Your task to perform on an android device: turn off data saver in the chrome app Image 0: 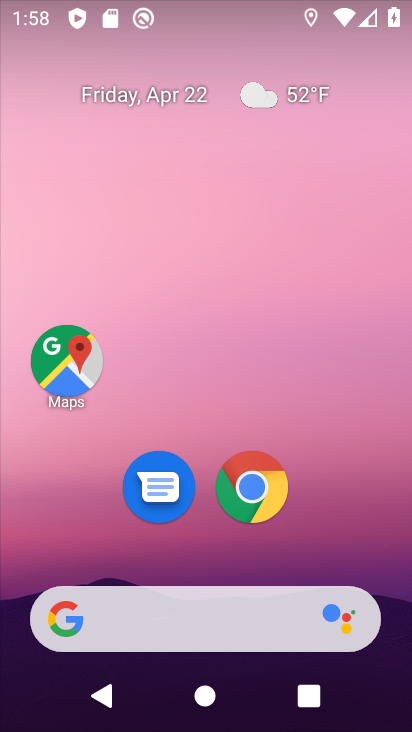
Step 0: click (242, 468)
Your task to perform on an android device: turn off data saver in the chrome app Image 1: 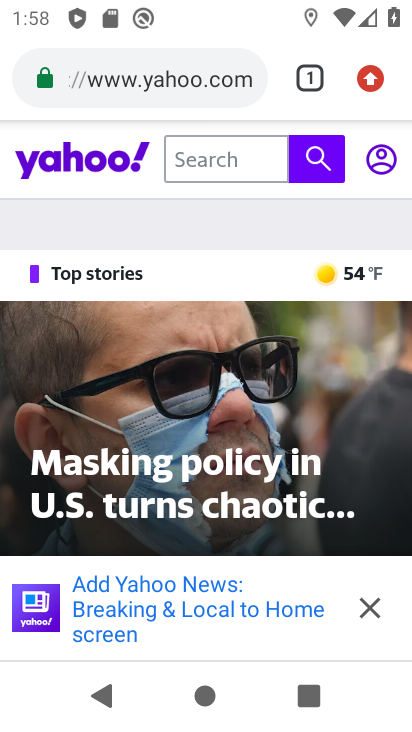
Step 1: click (373, 85)
Your task to perform on an android device: turn off data saver in the chrome app Image 2: 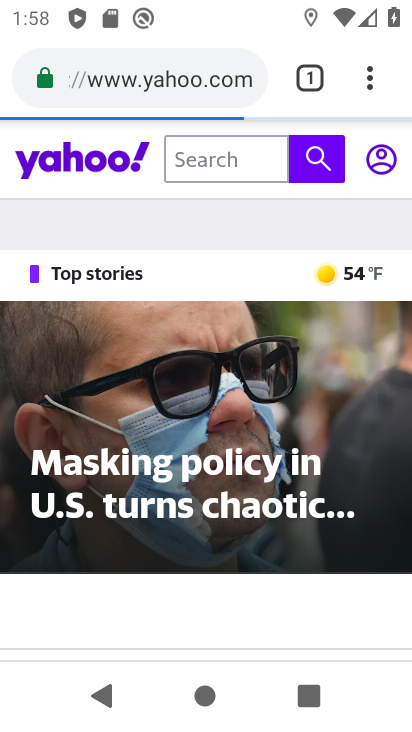
Step 2: click (368, 89)
Your task to perform on an android device: turn off data saver in the chrome app Image 3: 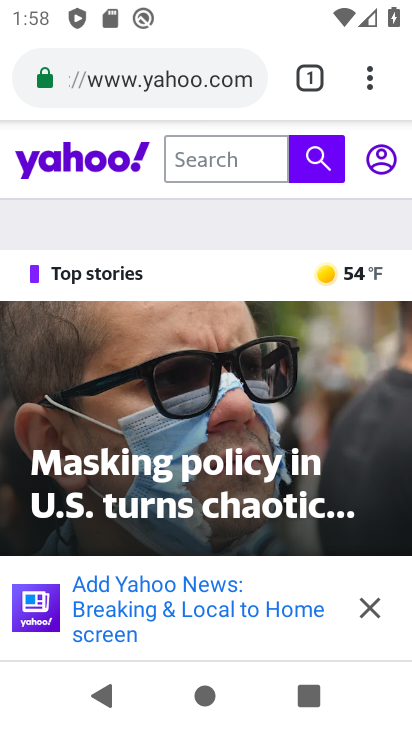
Step 3: click (382, 82)
Your task to perform on an android device: turn off data saver in the chrome app Image 4: 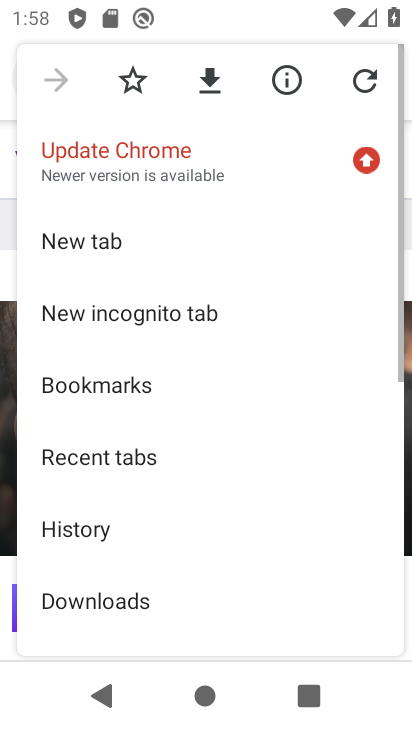
Step 4: drag from (112, 591) to (151, 380)
Your task to perform on an android device: turn off data saver in the chrome app Image 5: 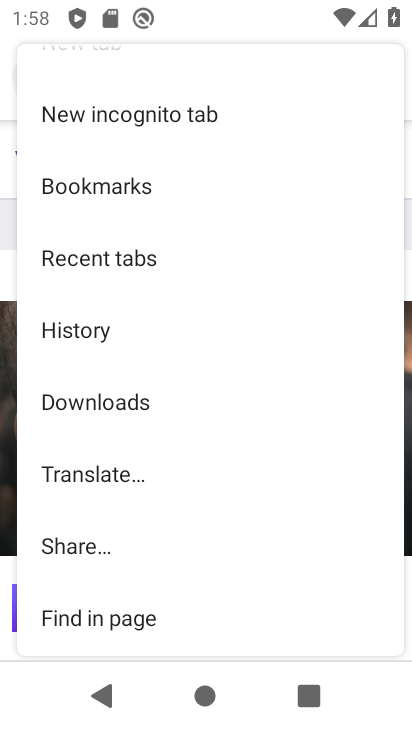
Step 5: drag from (107, 548) to (131, 266)
Your task to perform on an android device: turn off data saver in the chrome app Image 6: 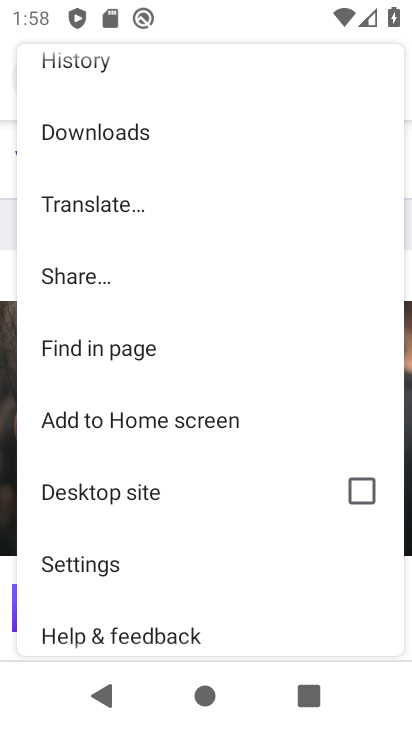
Step 6: click (74, 564)
Your task to perform on an android device: turn off data saver in the chrome app Image 7: 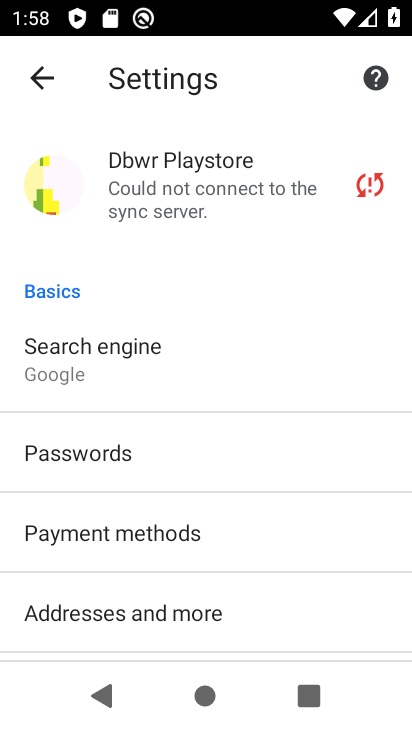
Step 7: drag from (93, 595) to (174, 229)
Your task to perform on an android device: turn off data saver in the chrome app Image 8: 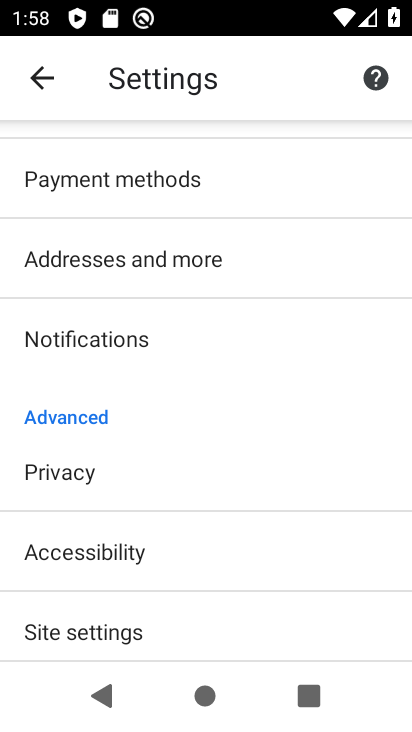
Step 8: drag from (36, 587) to (69, 382)
Your task to perform on an android device: turn off data saver in the chrome app Image 9: 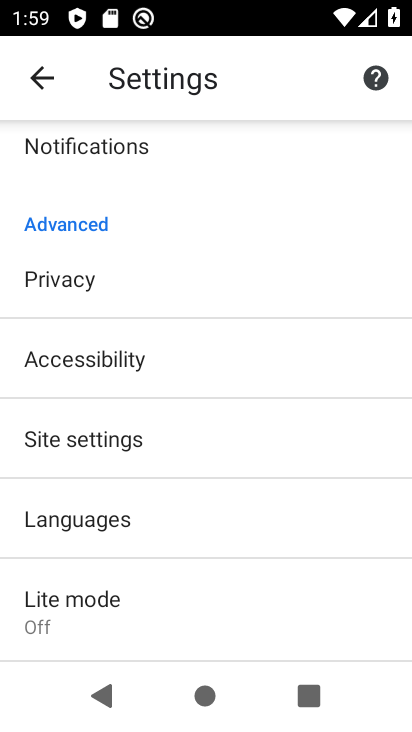
Step 9: click (65, 615)
Your task to perform on an android device: turn off data saver in the chrome app Image 10: 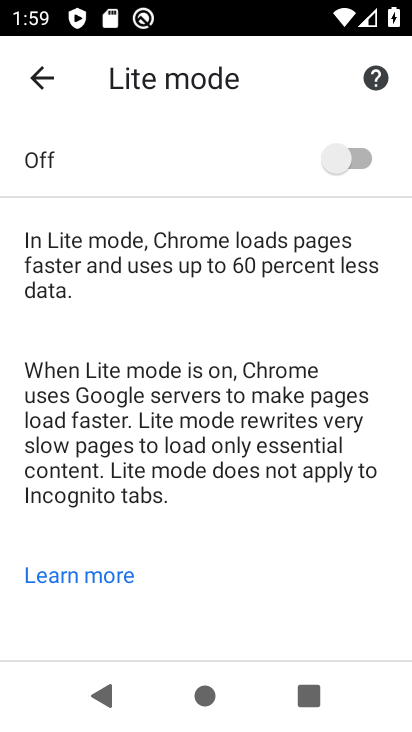
Step 10: task complete